Your task to perform on an android device: turn on wifi Image 0: 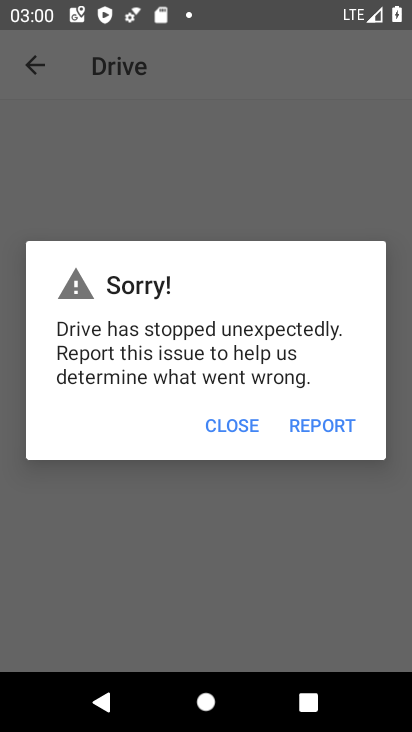
Step 0: press home button
Your task to perform on an android device: turn on wifi Image 1: 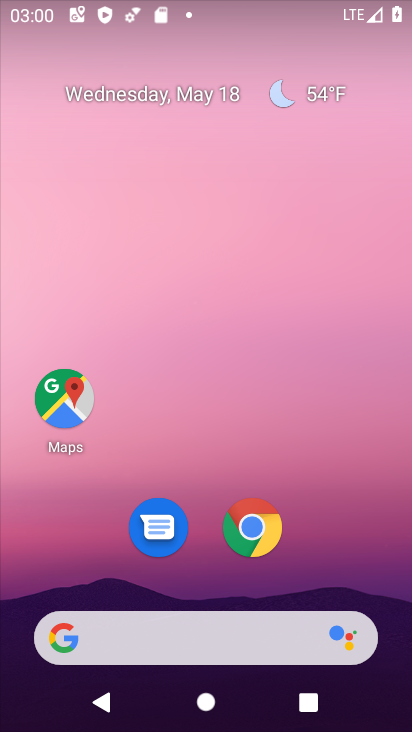
Step 1: drag from (202, 590) to (126, 43)
Your task to perform on an android device: turn on wifi Image 2: 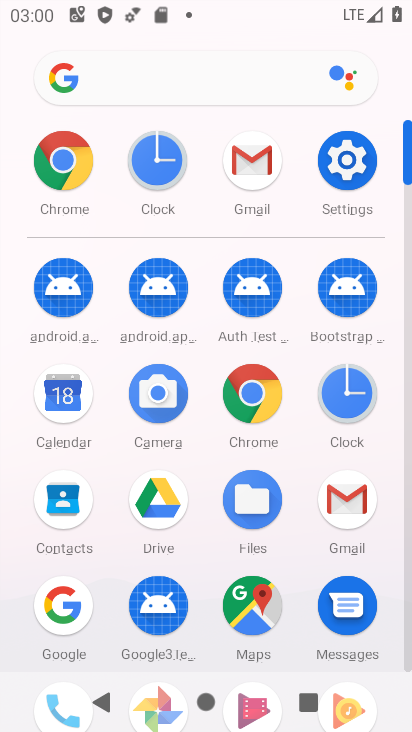
Step 2: click (339, 164)
Your task to perform on an android device: turn on wifi Image 3: 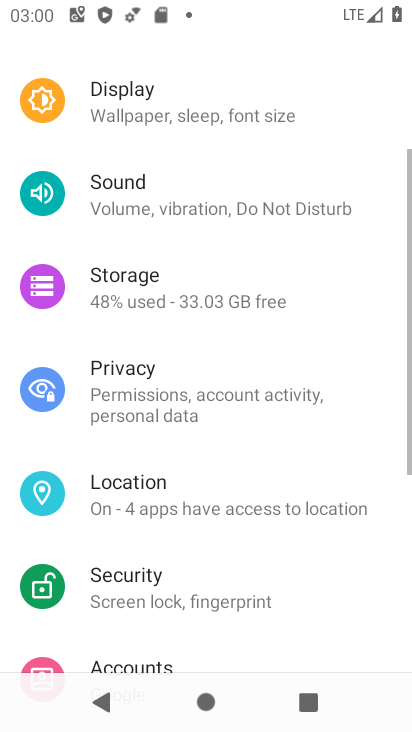
Step 3: drag from (172, 184) to (177, 544)
Your task to perform on an android device: turn on wifi Image 4: 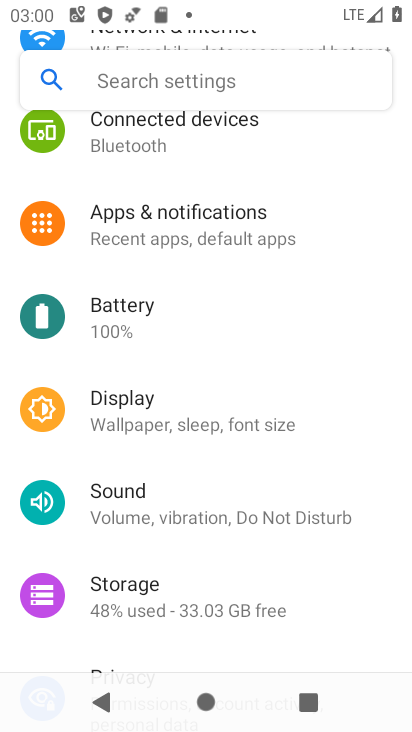
Step 4: drag from (149, 191) to (161, 531)
Your task to perform on an android device: turn on wifi Image 5: 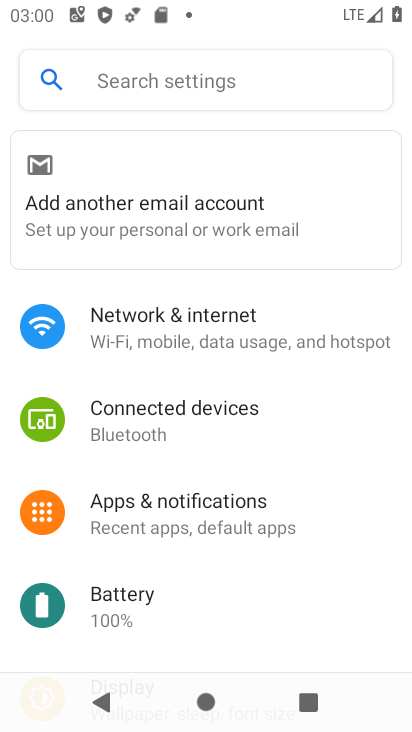
Step 5: click (154, 349)
Your task to perform on an android device: turn on wifi Image 6: 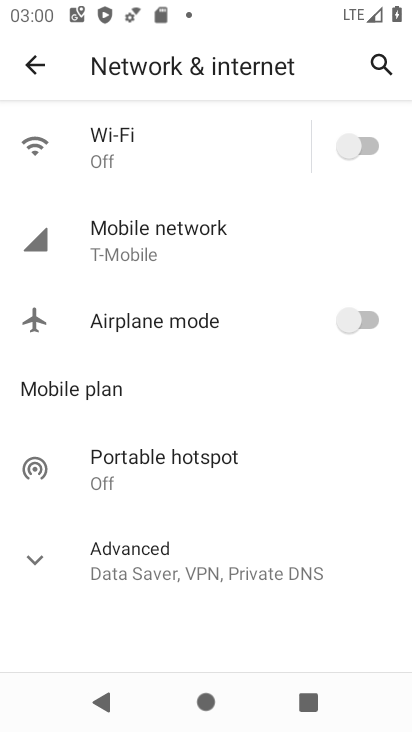
Step 6: click (350, 147)
Your task to perform on an android device: turn on wifi Image 7: 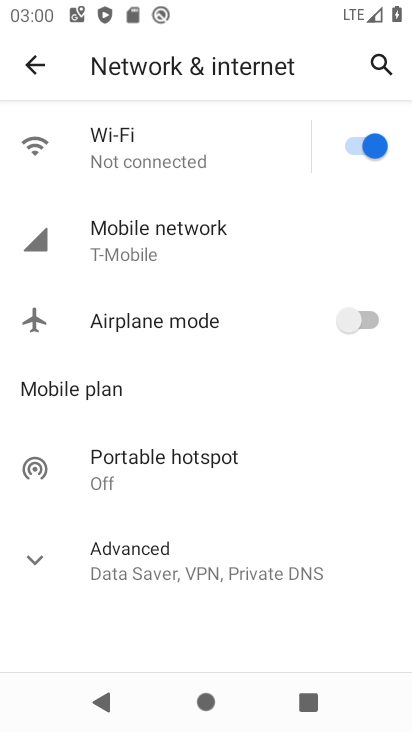
Step 7: task complete